Your task to perform on an android device: Check the weather Image 0: 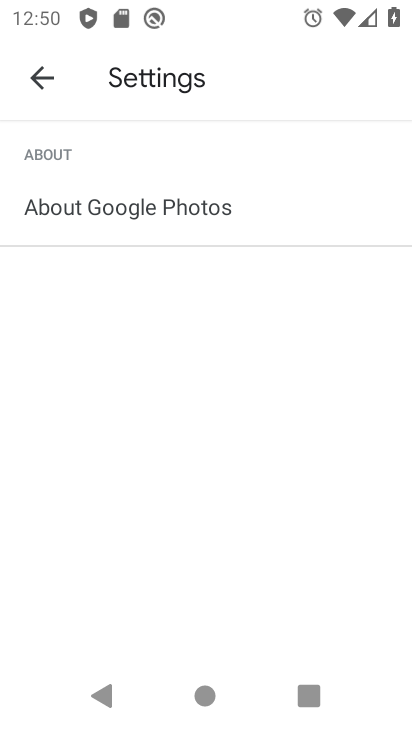
Step 0: click (45, 80)
Your task to perform on an android device: Check the weather Image 1: 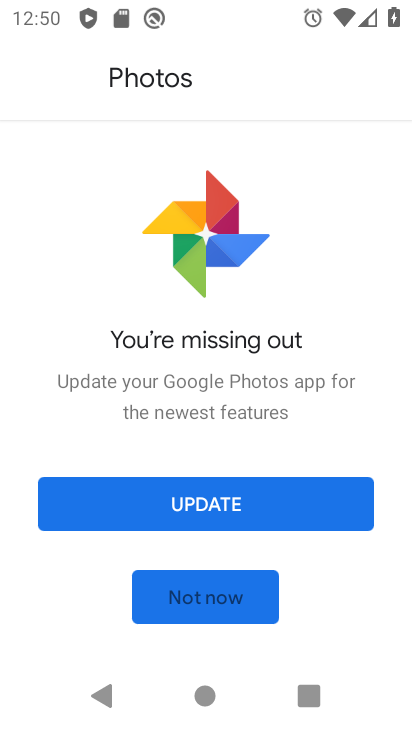
Step 1: press home button
Your task to perform on an android device: Check the weather Image 2: 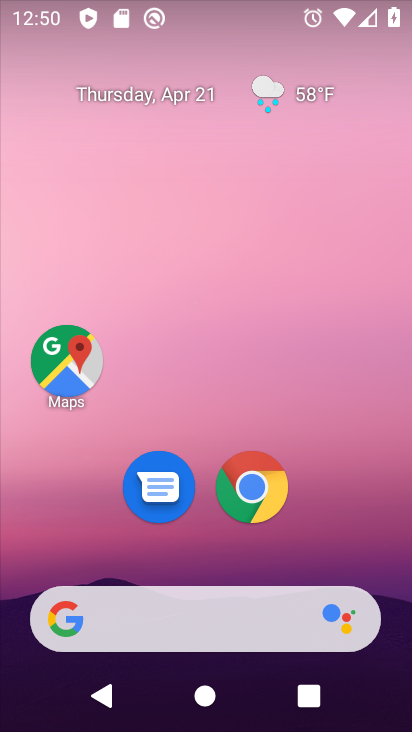
Step 2: click (304, 91)
Your task to perform on an android device: Check the weather Image 3: 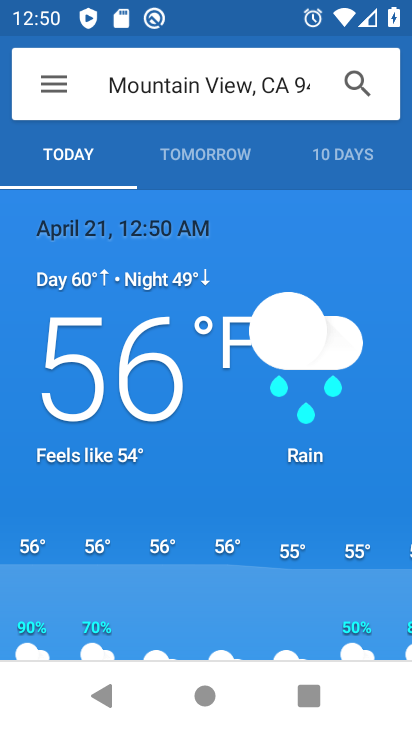
Step 3: task complete